Your task to perform on an android device: empty trash in the gmail app Image 0: 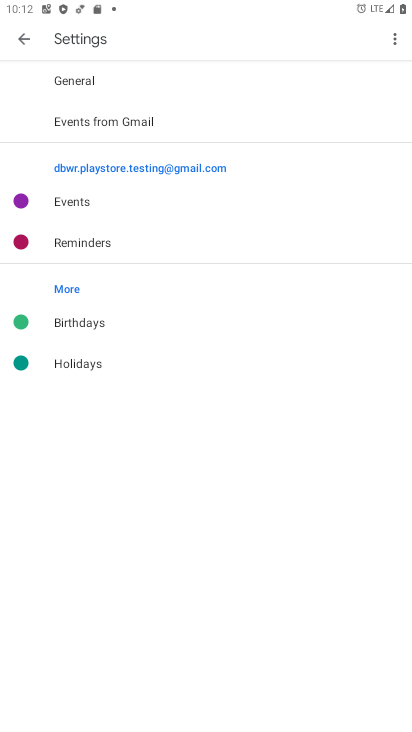
Step 0: press home button
Your task to perform on an android device: empty trash in the gmail app Image 1: 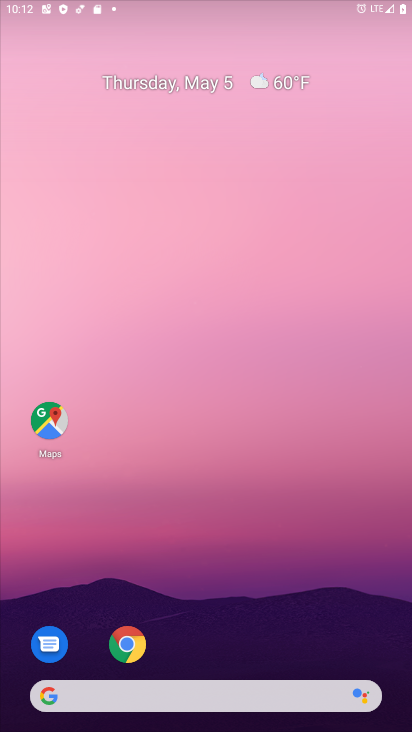
Step 1: drag from (198, 637) to (272, 206)
Your task to perform on an android device: empty trash in the gmail app Image 2: 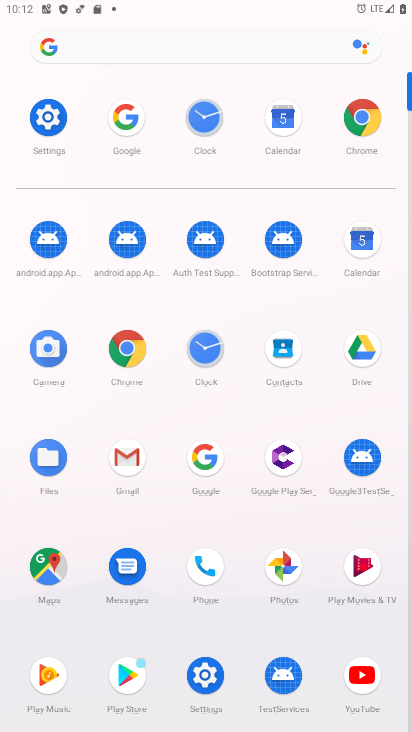
Step 2: click (140, 460)
Your task to perform on an android device: empty trash in the gmail app Image 3: 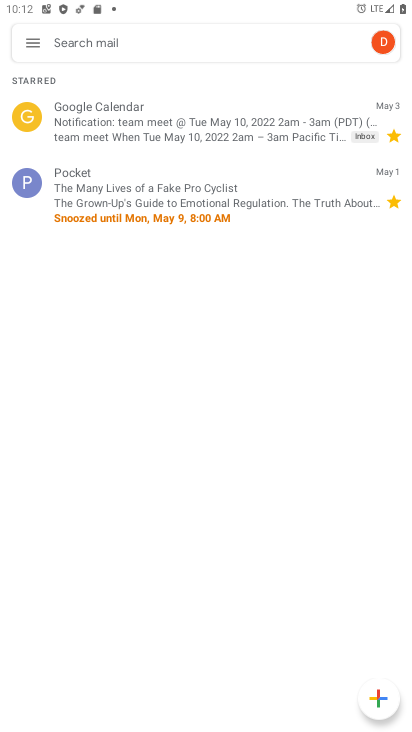
Step 3: click (31, 37)
Your task to perform on an android device: empty trash in the gmail app Image 4: 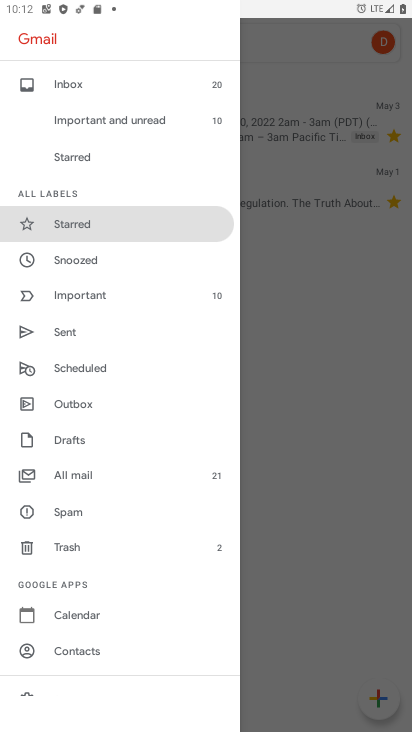
Step 4: click (122, 539)
Your task to perform on an android device: empty trash in the gmail app Image 5: 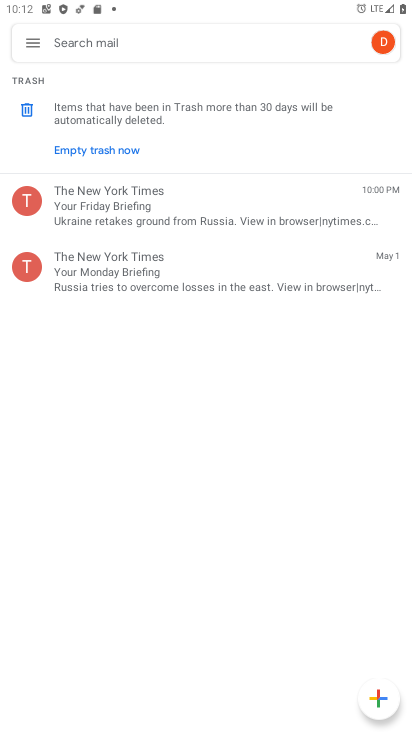
Step 5: click (97, 152)
Your task to perform on an android device: empty trash in the gmail app Image 6: 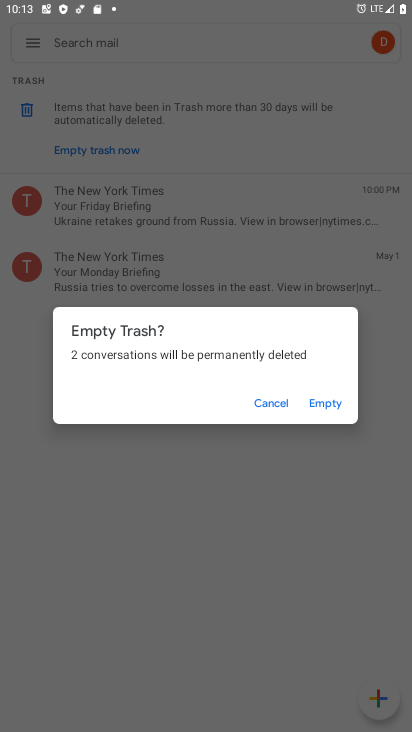
Step 6: click (325, 405)
Your task to perform on an android device: empty trash in the gmail app Image 7: 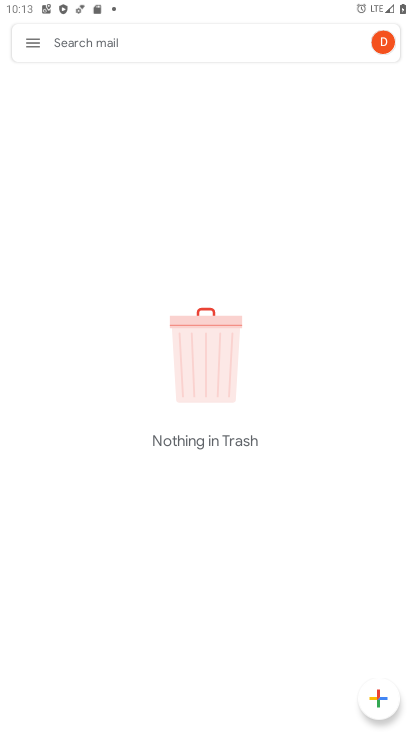
Step 7: task complete